Your task to perform on an android device: visit the assistant section in the google photos Image 0: 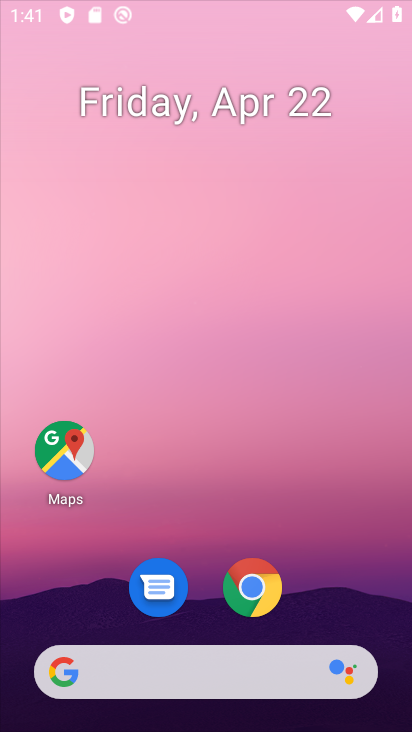
Step 0: drag from (215, 106) to (234, 222)
Your task to perform on an android device: visit the assistant section in the google photos Image 1: 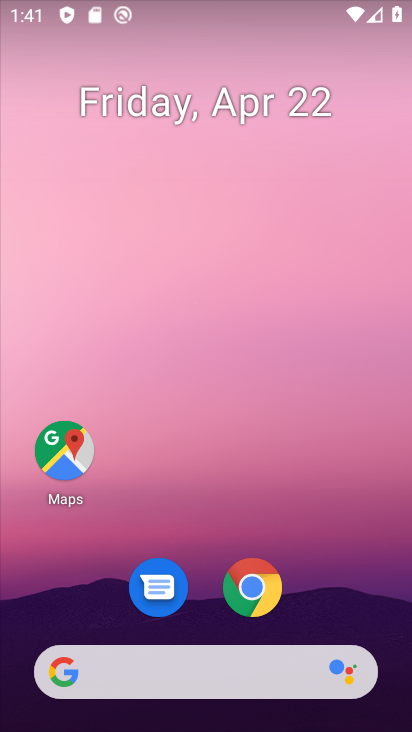
Step 1: drag from (202, 619) to (221, 127)
Your task to perform on an android device: visit the assistant section in the google photos Image 2: 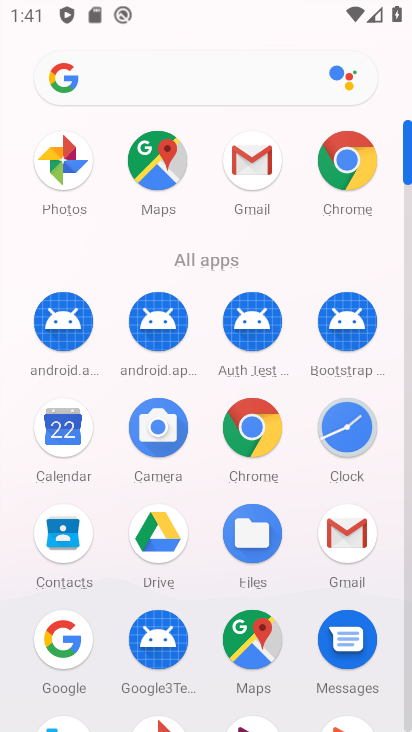
Step 2: drag from (200, 642) to (223, 196)
Your task to perform on an android device: visit the assistant section in the google photos Image 3: 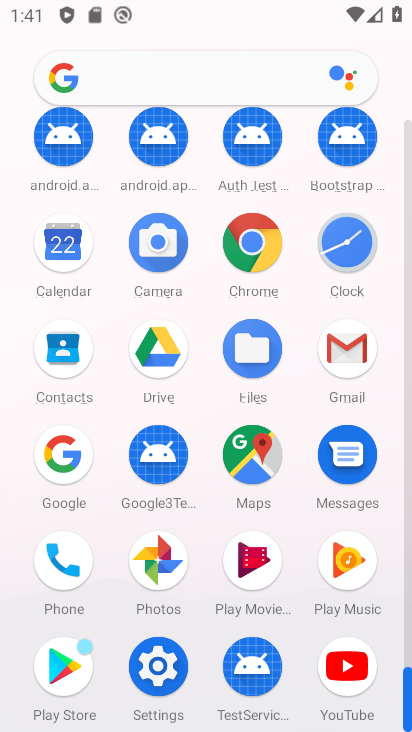
Step 3: click (159, 560)
Your task to perform on an android device: visit the assistant section in the google photos Image 4: 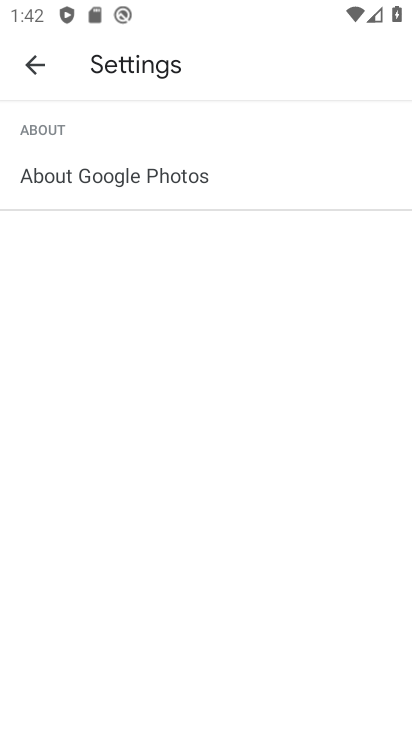
Step 4: press home button
Your task to perform on an android device: visit the assistant section in the google photos Image 5: 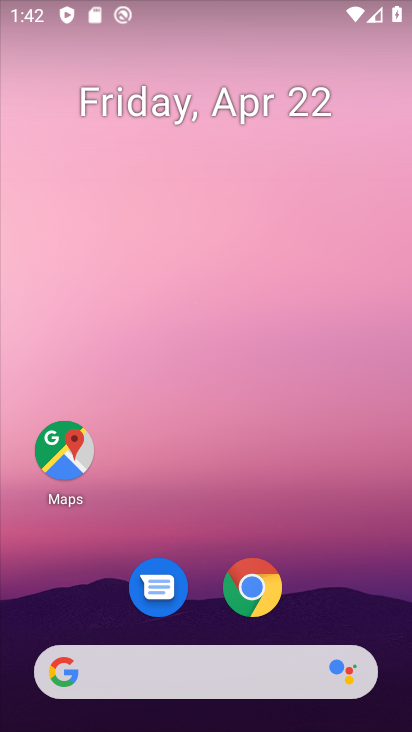
Step 5: drag from (210, 612) to (232, 225)
Your task to perform on an android device: visit the assistant section in the google photos Image 6: 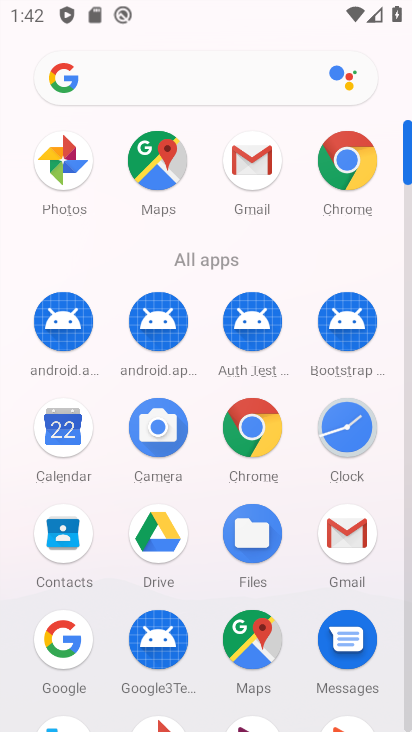
Step 6: drag from (222, 682) to (207, 258)
Your task to perform on an android device: visit the assistant section in the google photos Image 7: 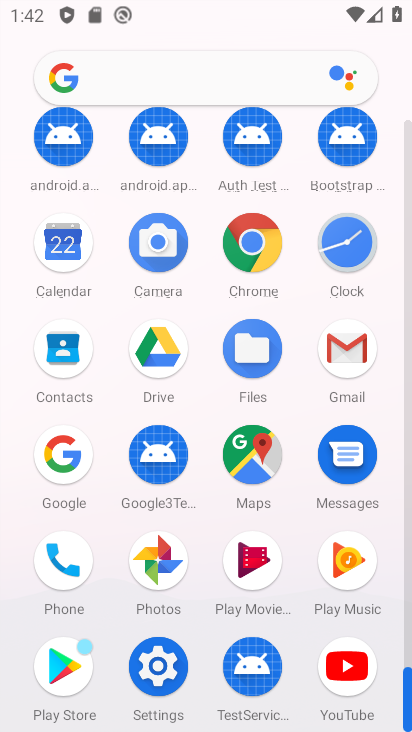
Step 7: click (170, 560)
Your task to perform on an android device: visit the assistant section in the google photos Image 8: 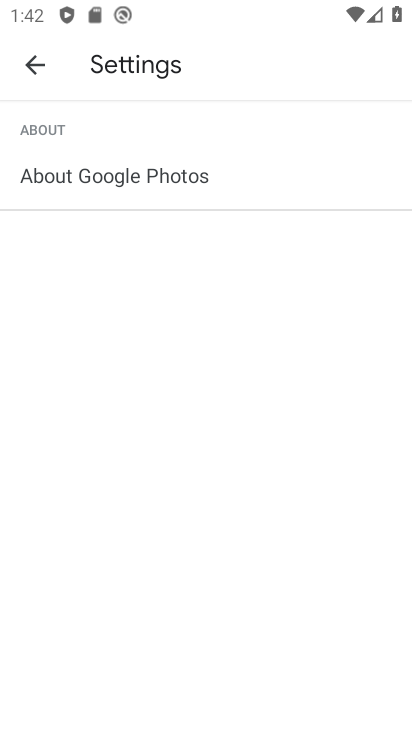
Step 8: drag from (201, 540) to (241, 116)
Your task to perform on an android device: visit the assistant section in the google photos Image 9: 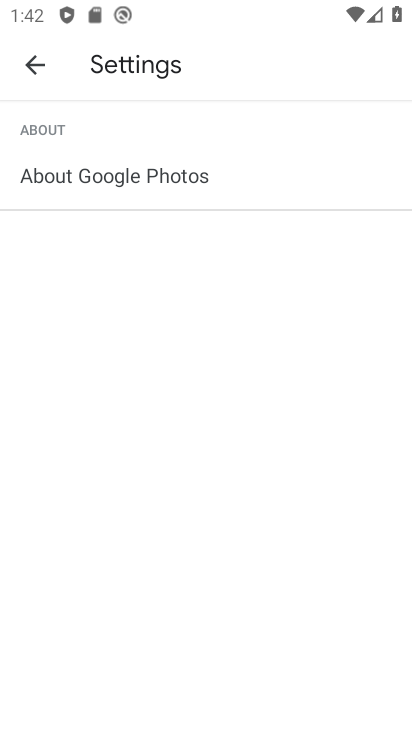
Step 9: click (33, 59)
Your task to perform on an android device: visit the assistant section in the google photos Image 10: 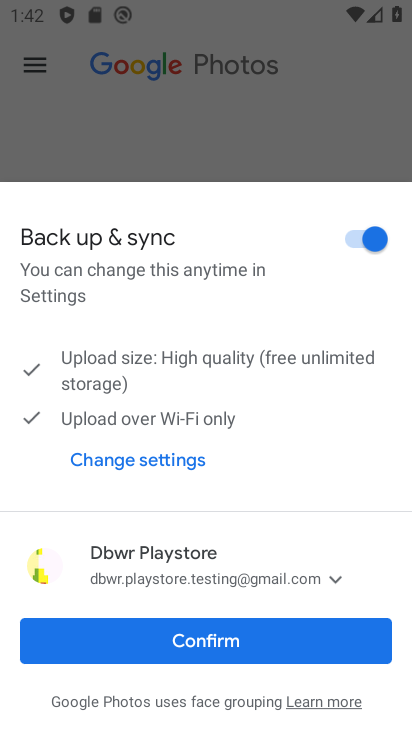
Step 10: click (265, 61)
Your task to perform on an android device: visit the assistant section in the google photos Image 11: 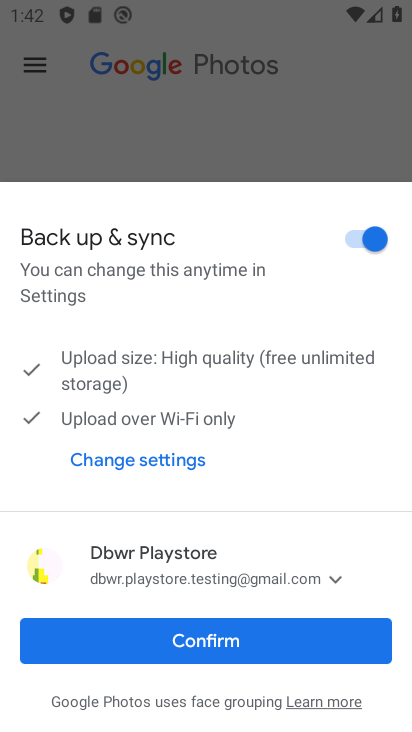
Step 11: click (256, 96)
Your task to perform on an android device: visit the assistant section in the google photos Image 12: 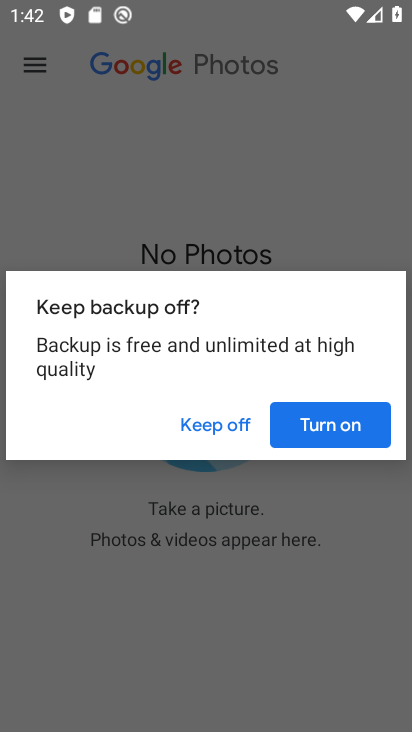
Step 12: click (147, 648)
Your task to perform on an android device: visit the assistant section in the google photos Image 13: 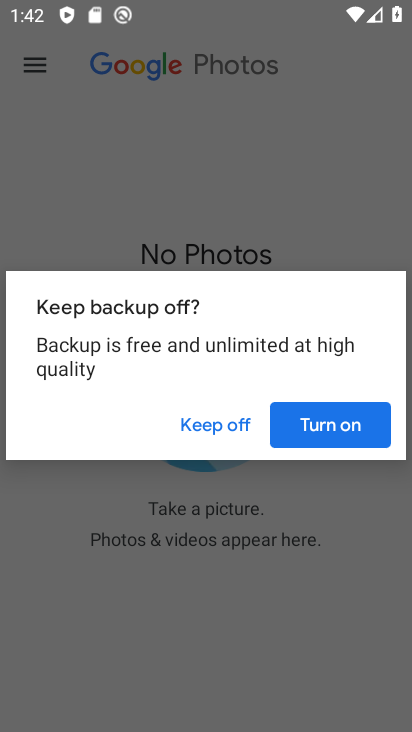
Step 13: click (311, 440)
Your task to perform on an android device: visit the assistant section in the google photos Image 14: 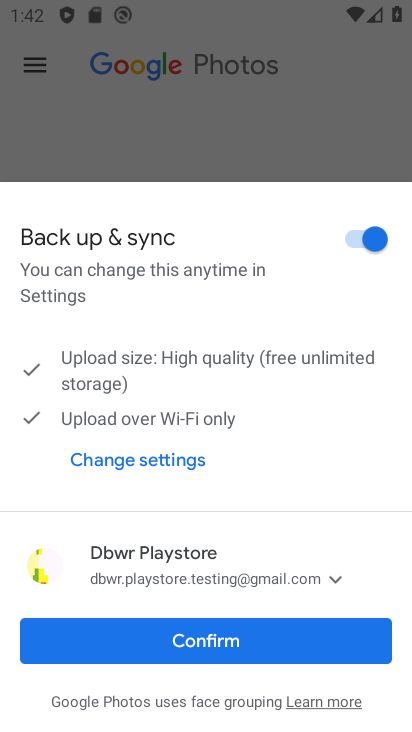
Step 14: click (198, 622)
Your task to perform on an android device: visit the assistant section in the google photos Image 15: 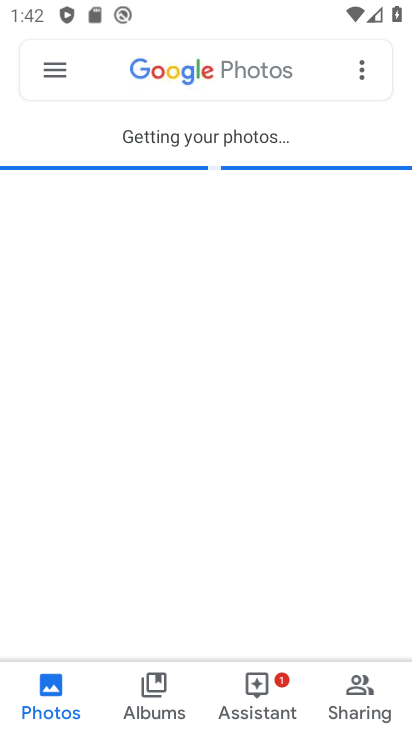
Step 15: click (272, 724)
Your task to perform on an android device: visit the assistant section in the google photos Image 16: 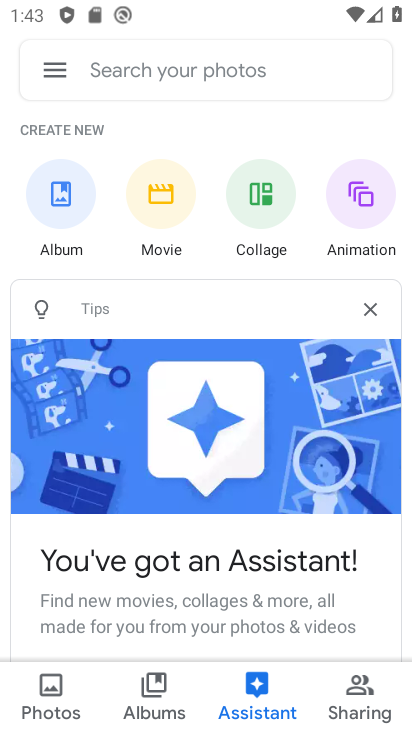
Step 16: task complete